Your task to perform on an android device: toggle airplane mode Image 0: 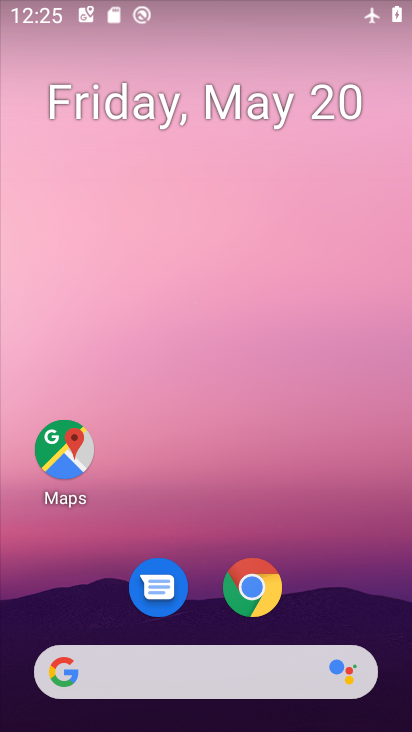
Step 0: drag from (355, 601) to (339, 181)
Your task to perform on an android device: toggle airplane mode Image 1: 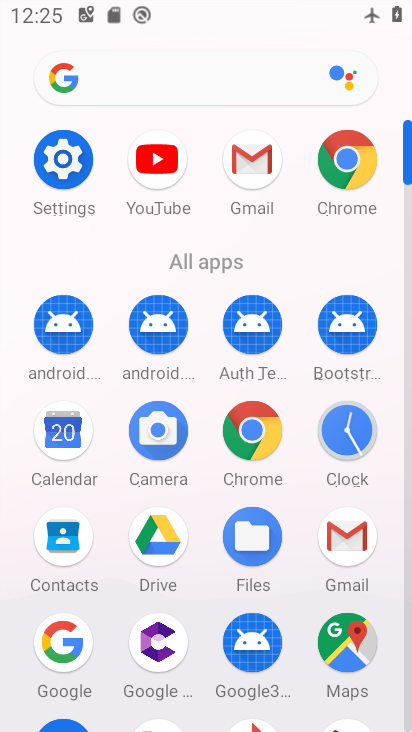
Step 1: click (77, 150)
Your task to perform on an android device: toggle airplane mode Image 2: 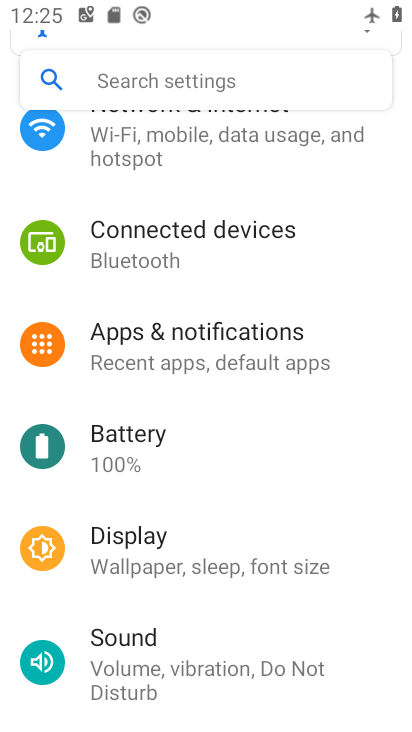
Step 2: drag from (326, 511) to (326, 427)
Your task to perform on an android device: toggle airplane mode Image 3: 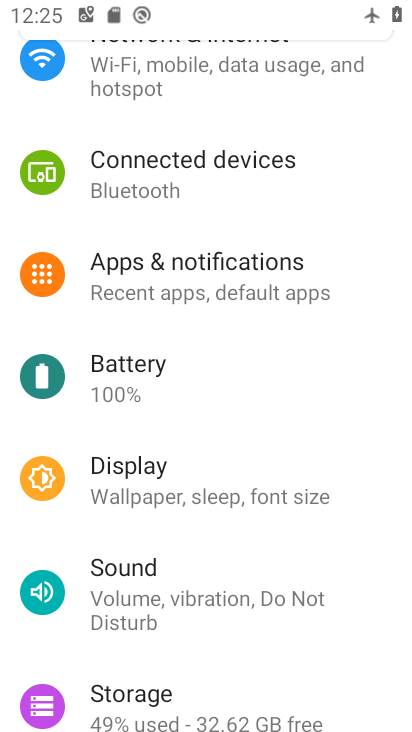
Step 3: drag from (351, 553) to (349, 471)
Your task to perform on an android device: toggle airplane mode Image 4: 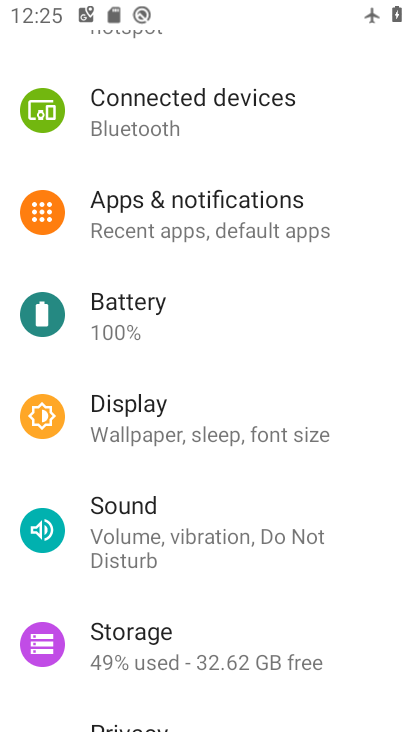
Step 4: drag from (366, 591) to (364, 502)
Your task to perform on an android device: toggle airplane mode Image 5: 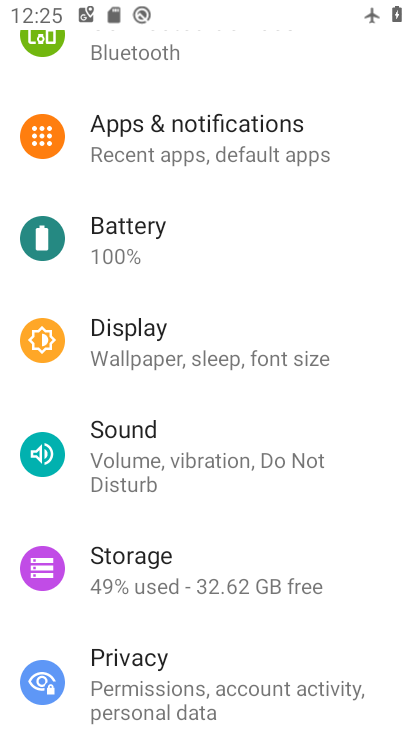
Step 5: drag from (365, 624) to (364, 527)
Your task to perform on an android device: toggle airplane mode Image 6: 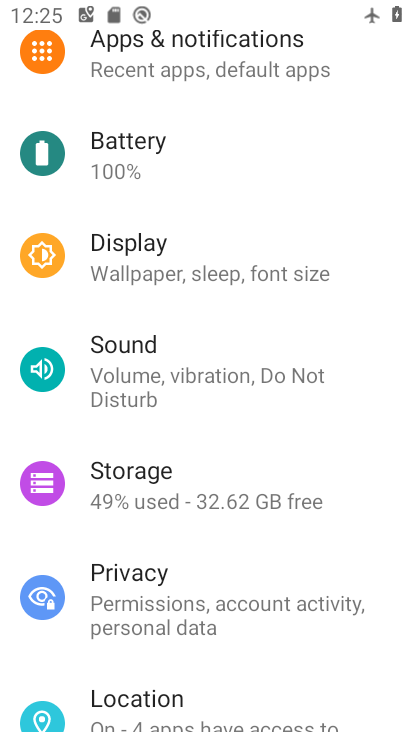
Step 6: drag from (369, 660) to (358, 595)
Your task to perform on an android device: toggle airplane mode Image 7: 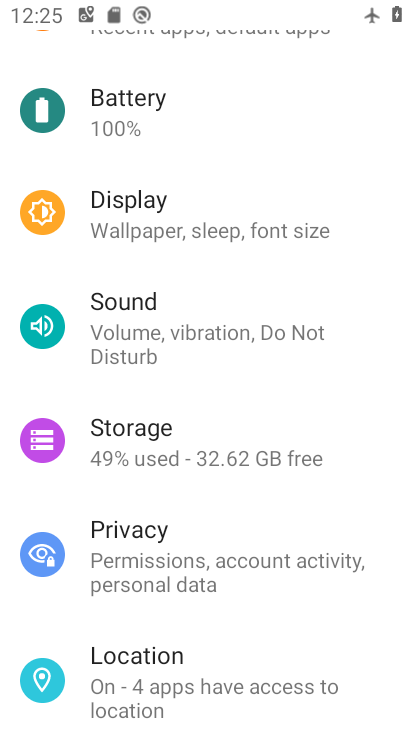
Step 7: drag from (350, 648) to (351, 543)
Your task to perform on an android device: toggle airplane mode Image 8: 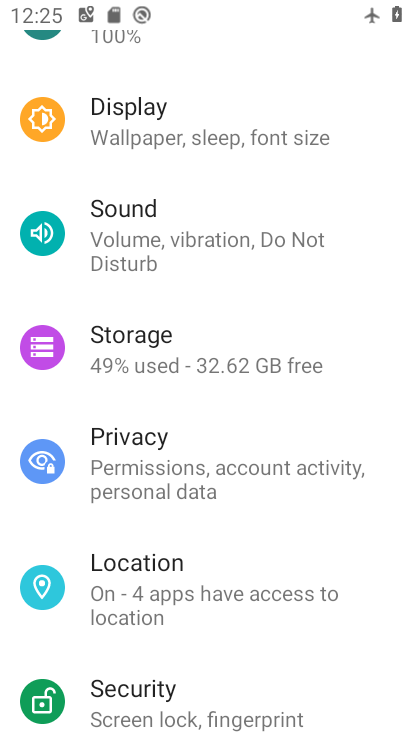
Step 8: drag from (352, 644) to (356, 539)
Your task to perform on an android device: toggle airplane mode Image 9: 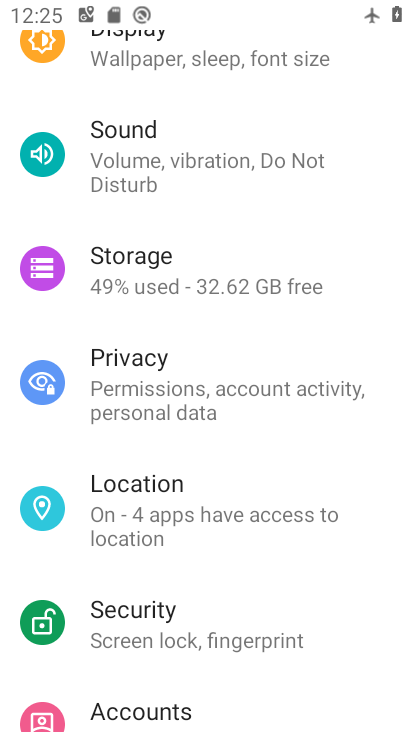
Step 9: drag from (359, 671) to (359, 571)
Your task to perform on an android device: toggle airplane mode Image 10: 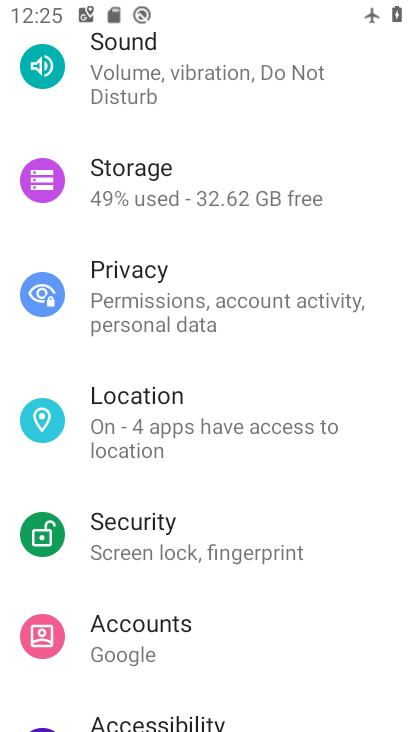
Step 10: drag from (350, 661) to (348, 545)
Your task to perform on an android device: toggle airplane mode Image 11: 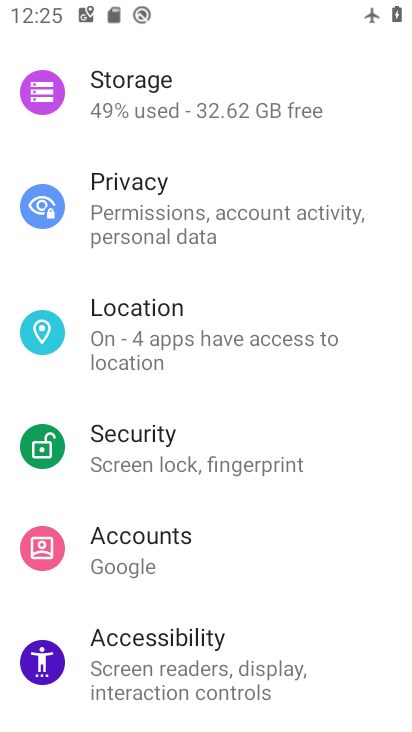
Step 11: drag from (369, 664) to (362, 539)
Your task to perform on an android device: toggle airplane mode Image 12: 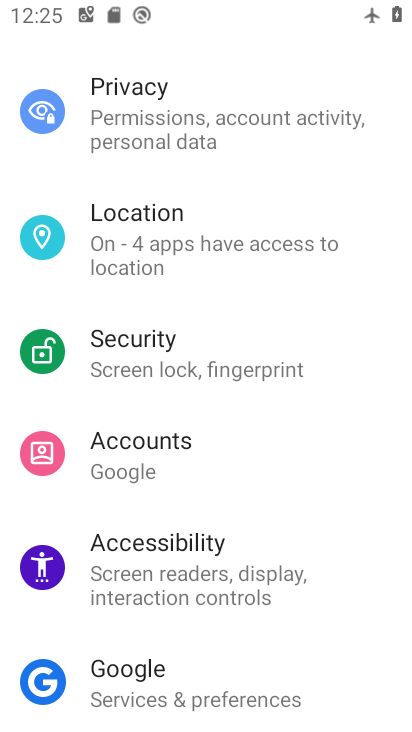
Step 12: drag from (355, 657) to (349, 538)
Your task to perform on an android device: toggle airplane mode Image 13: 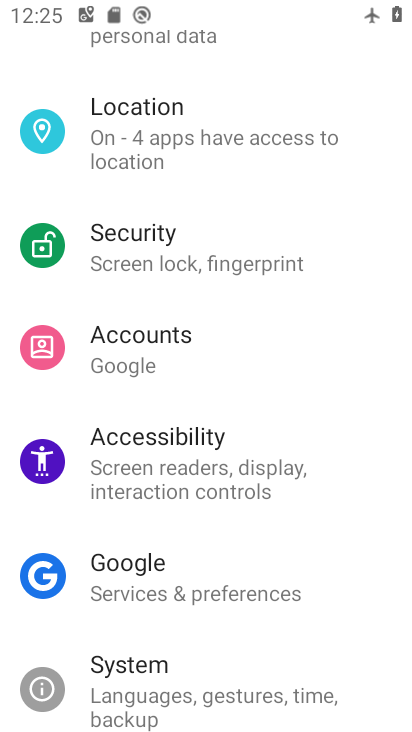
Step 13: drag from (355, 634) to (356, 508)
Your task to perform on an android device: toggle airplane mode Image 14: 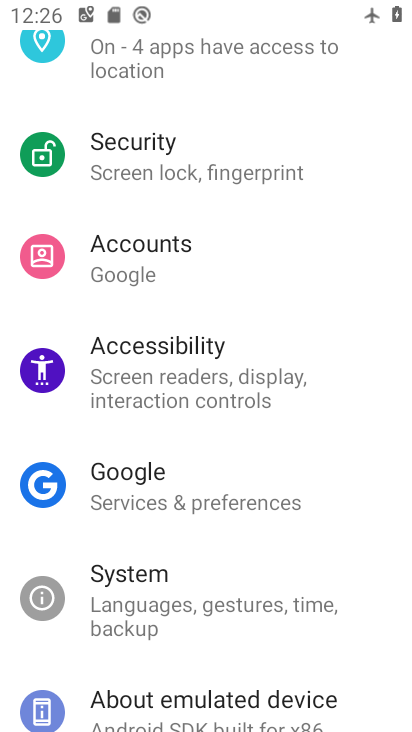
Step 14: drag from (368, 654) to (364, 558)
Your task to perform on an android device: toggle airplane mode Image 15: 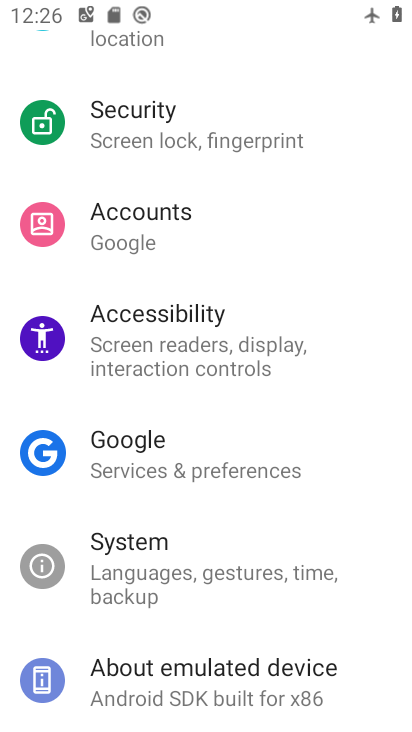
Step 15: drag from (368, 633) to (364, 531)
Your task to perform on an android device: toggle airplane mode Image 16: 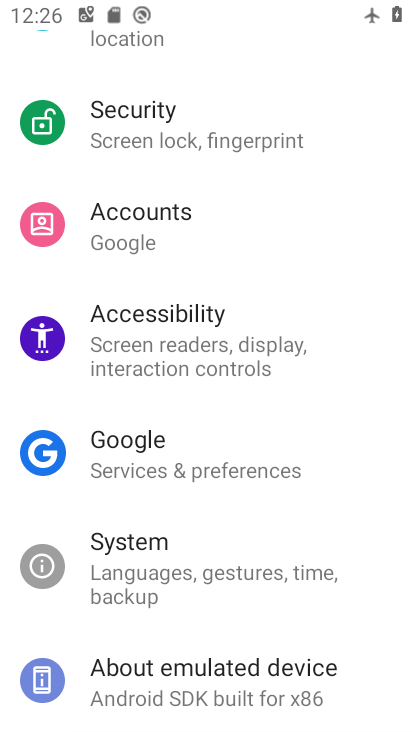
Step 16: drag from (355, 442) to (353, 516)
Your task to perform on an android device: toggle airplane mode Image 17: 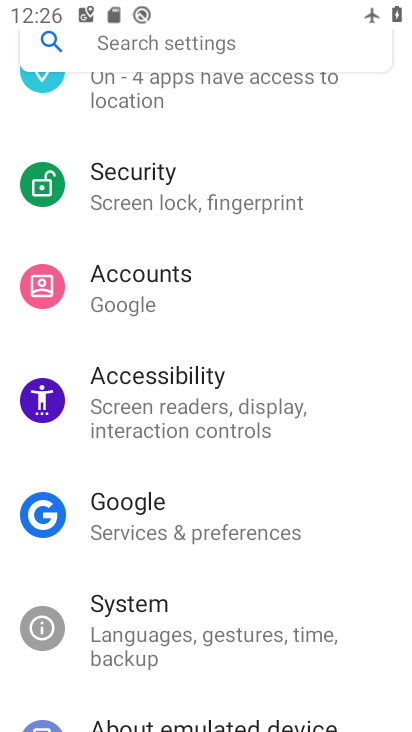
Step 17: drag from (355, 418) to (356, 503)
Your task to perform on an android device: toggle airplane mode Image 18: 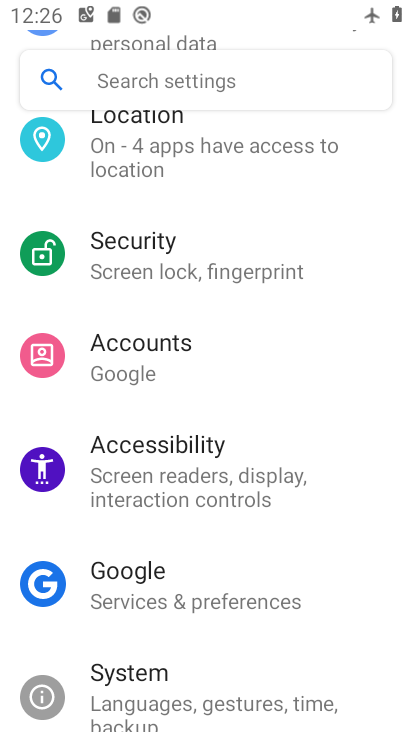
Step 18: drag from (348, 393) to (354, 481)
Your task to perform on an android device: toggle airplane mode Image 19: 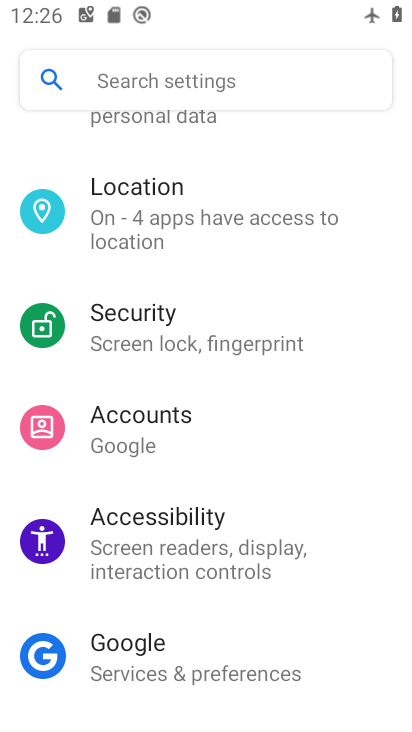
Step 19: drag from (355, 410) to (358, 473)
Your task to perform on an android device: toggle airplane mode Image 20: 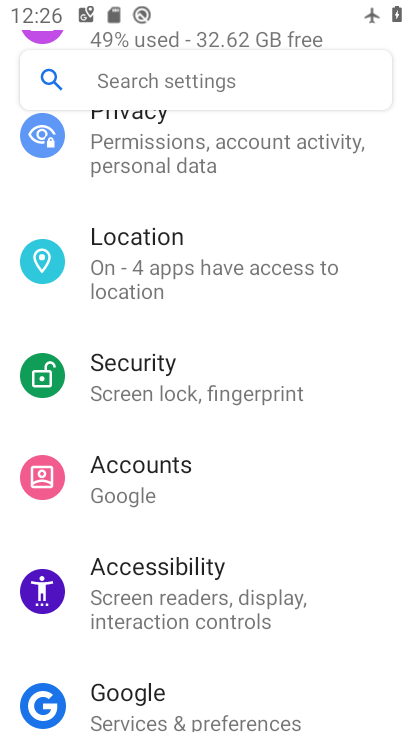
Step 20: drag from (358, 425) to (360, 479)
Your task to perform on an android device: toggle airplane mode Image 21: 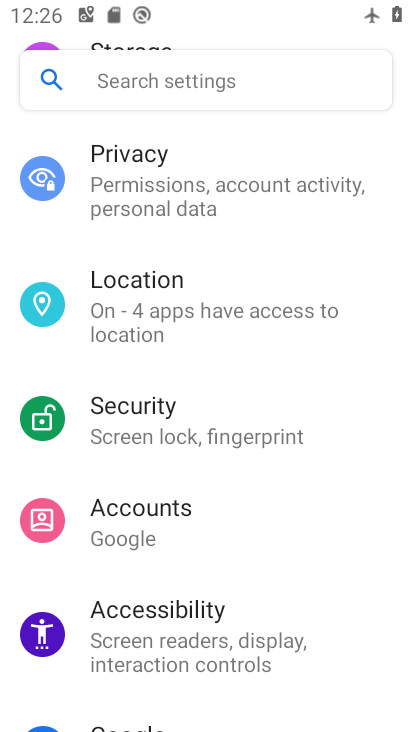
Step 21: drag from (357, 416) to (359, 478)
Your task to perform on an android device: toggle airplane mode Image 22: 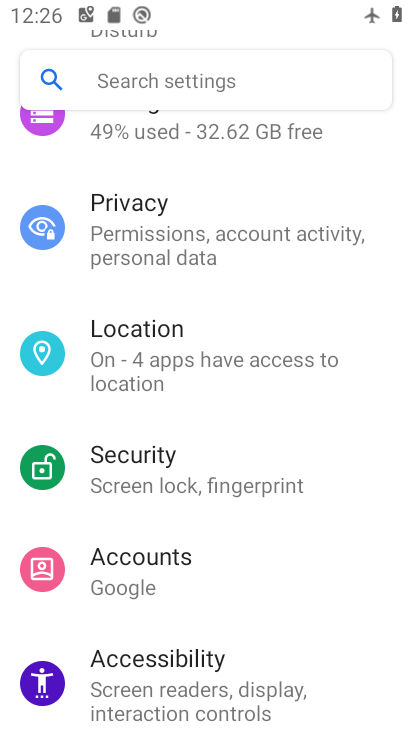
Step 22: drag from (362, 423) to (362, 484)
Your task to perform on an android device: toggle airplane mode Image 23: 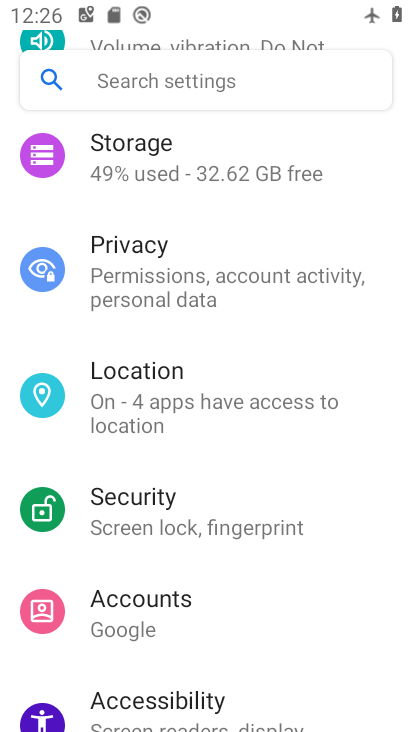
Step 23: drag from (370, 420) to (371, 508)
Your task to perform on an android device: toggle airplane mode Image 24: 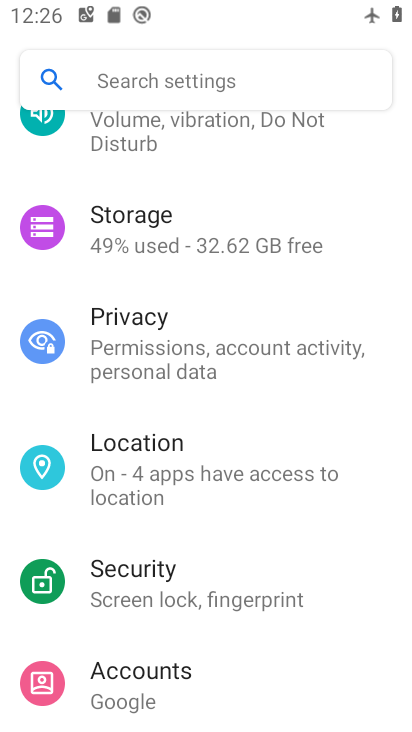
Step 24: drag from (368, 427) to (367, 536)
Your task to perform on an android device: toggle airplane mode Image 25: 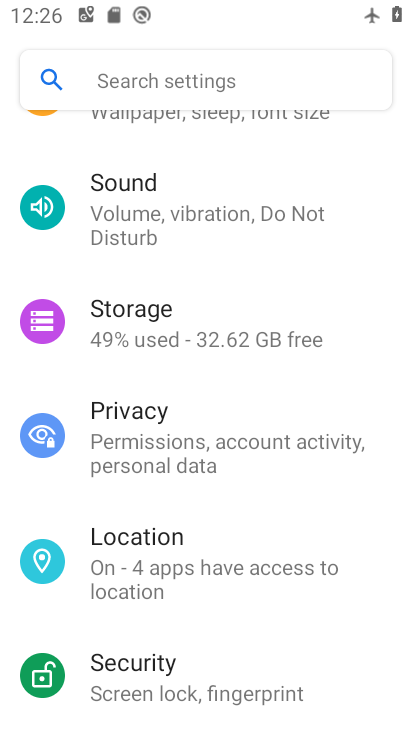
Step 25: drag from (368, 400) to (368, 473)
Your task to perform on an android device: toggle airplane mode Image 26: 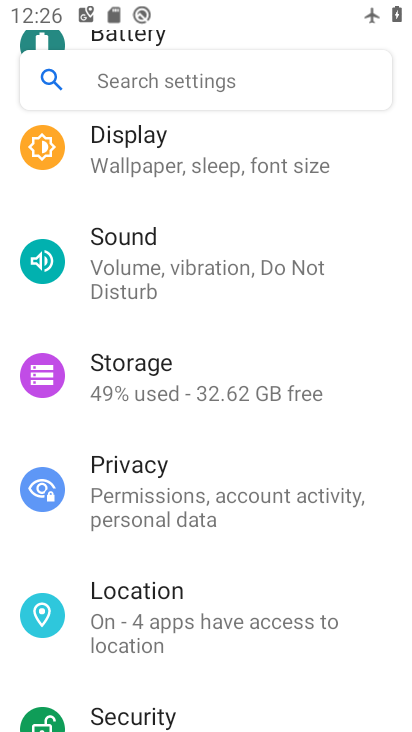
Step 26: drag from (372, 369) to (375, 494)
Your task to perform on an android device: toggle airplane mode Image 27: 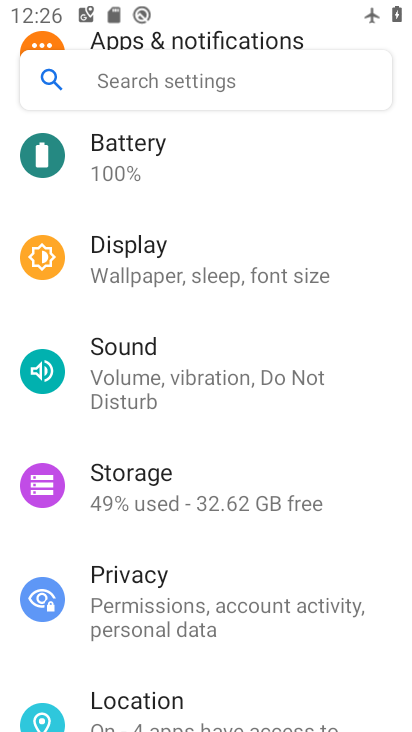
Step 27: drag from (375, 329) to (380, 437)
Your task to perform on an android device: toggle airplane mode Image 28: 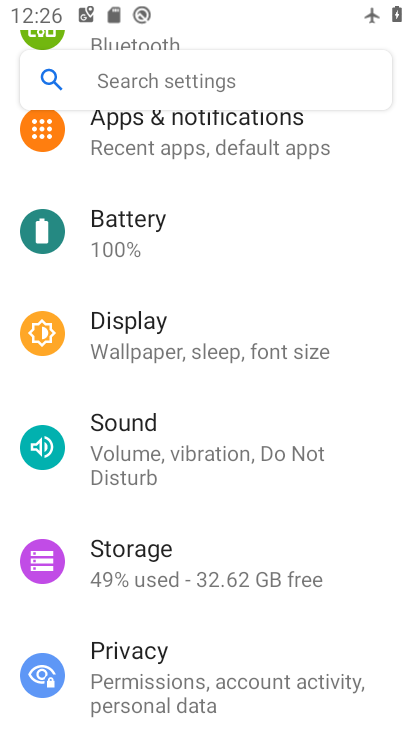
Step 28: drag from (381, 292) to (381, 425)
Your task to perform on an android device: toggle airplane mode Image 29: 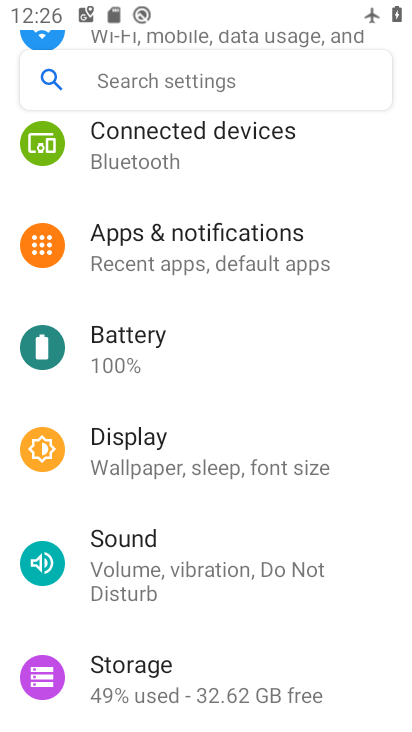
Step 29: drag from (369, 260) to (368, 374)
Your task to perform on an android device: toggle airplane mode Image 30: 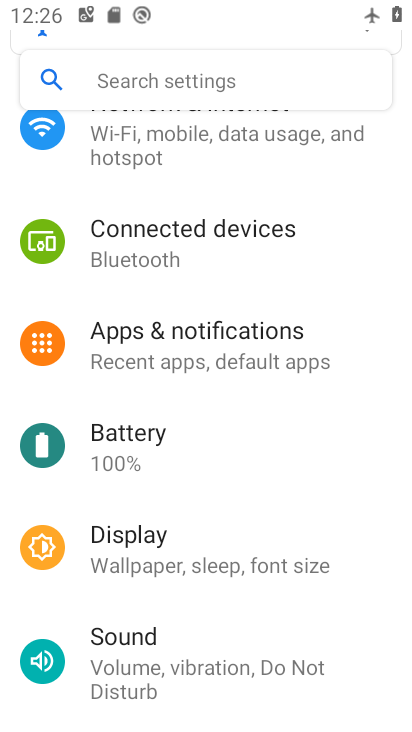
Step 30: drag from (360, 251) to (359, 365)
Your task to perform on an android device: toggle airplane mode Image 31: 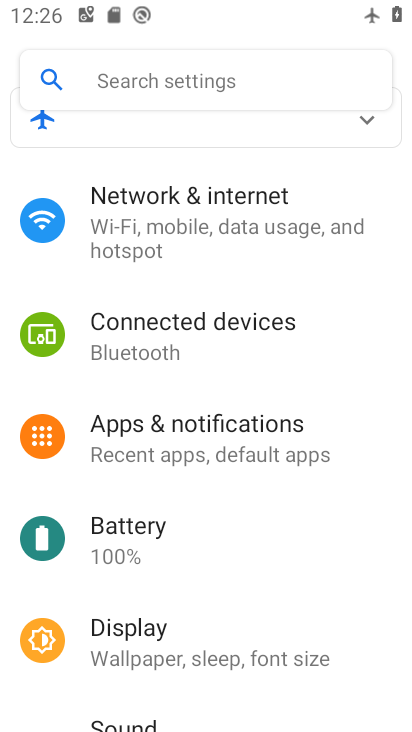
Step 31: click (323, 229)
Your task to perform on an android device: toggle airplane mode Image 32: 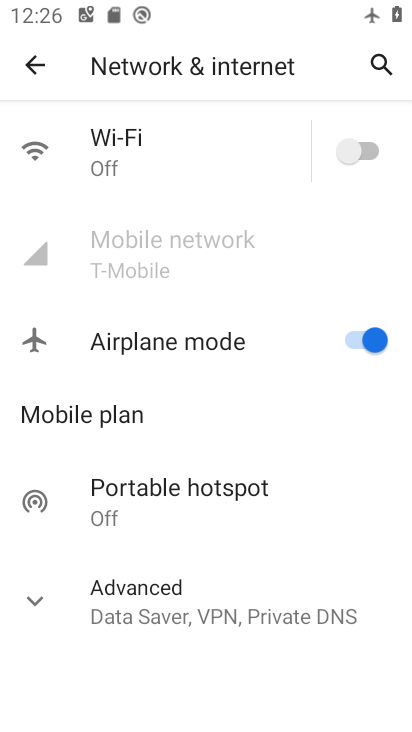
Step 32: click (351, 340)
Your task to perform on an android device: toggle airplane mode Image 33: 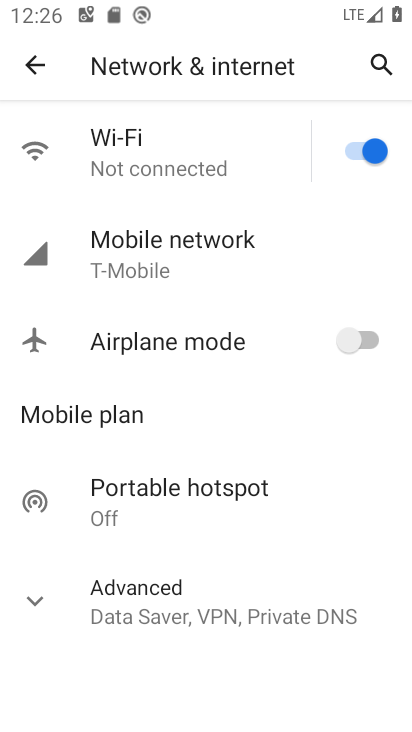
Step 33: task complete